Your task to perform on an android device: turn off airplane mode Image 0: 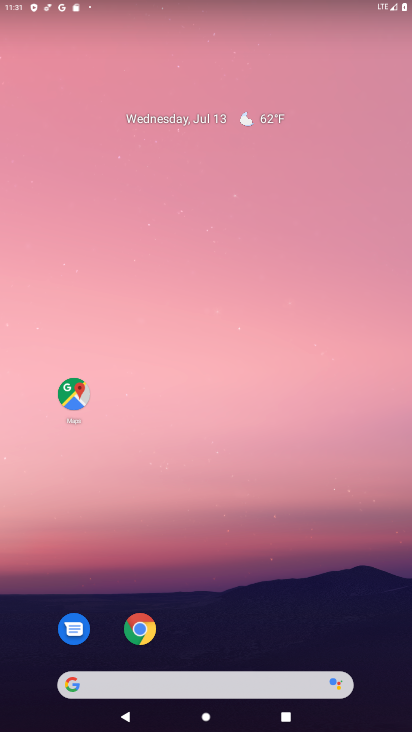
Step 0: drag from (312, 9) to (303, 539)
Your task to perform on an android device: turn off airplane mode Image 1: 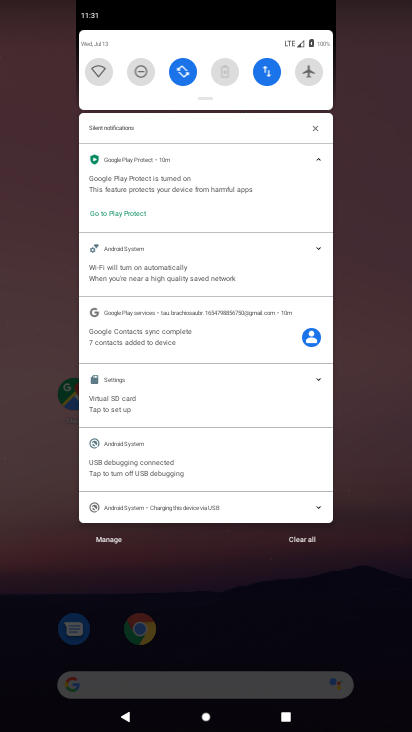
Step 1: task complete